Your task to perform on an android device: change the clock display to show seconds Image 0: 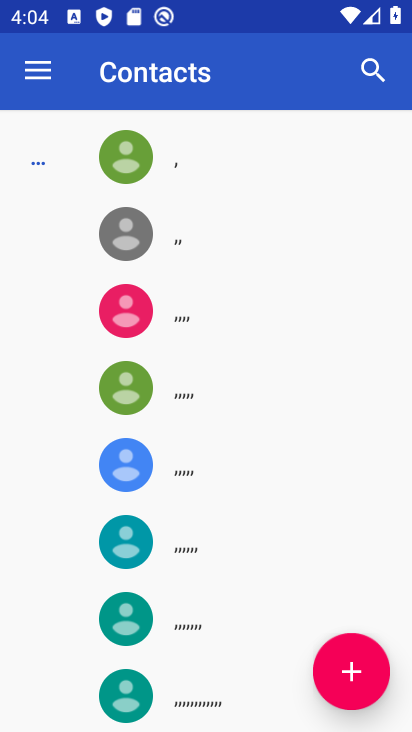
Step 0: press home button
Your task to perform on an android device: change the clock display to show seconds Image 1: 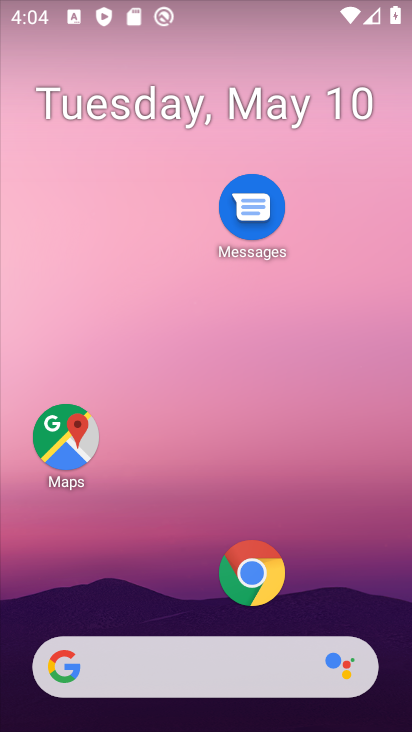
Step 1: drag from (191, 598) to (190, 196)
Your task to perform on an android device: change the clock display to show seconds Image 2: 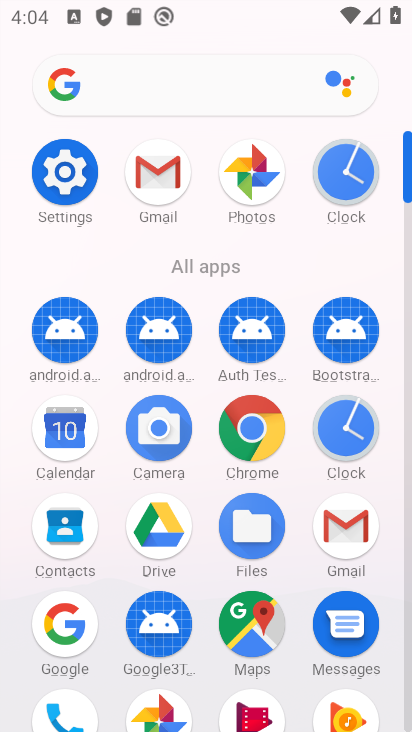
Step 2: click (76, 174)
Your task to perform on an android device: change the clock display to show seconds Image 3: 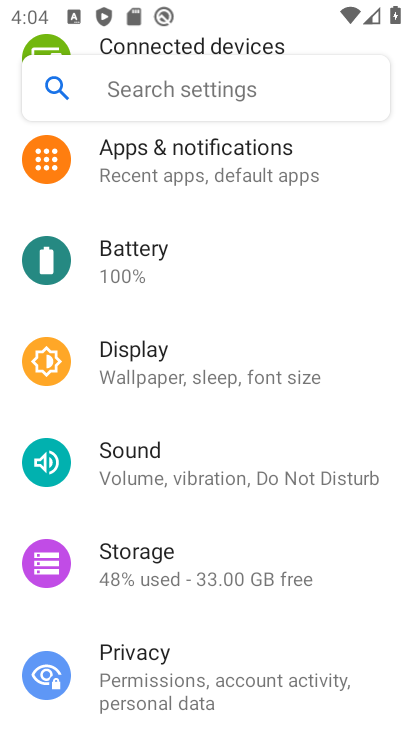
Step 3: press home button
Your task to perform on an android device: change the clock display to show seconds Image 4: 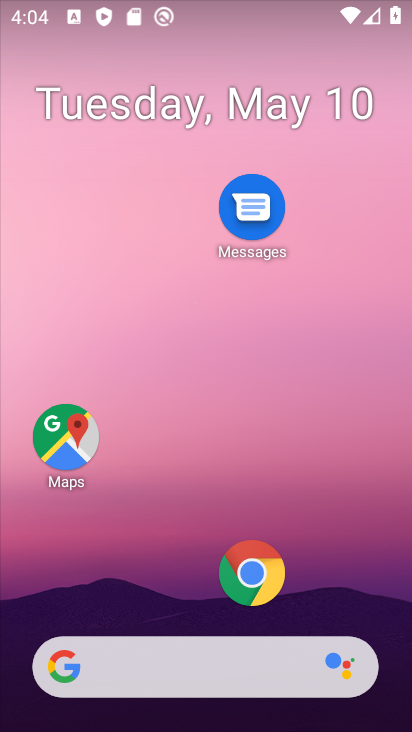
Step 4: drag from (176, 604) to (148, 271)
Your task to perform on an android device: change the clock display to show seconds Image 5: 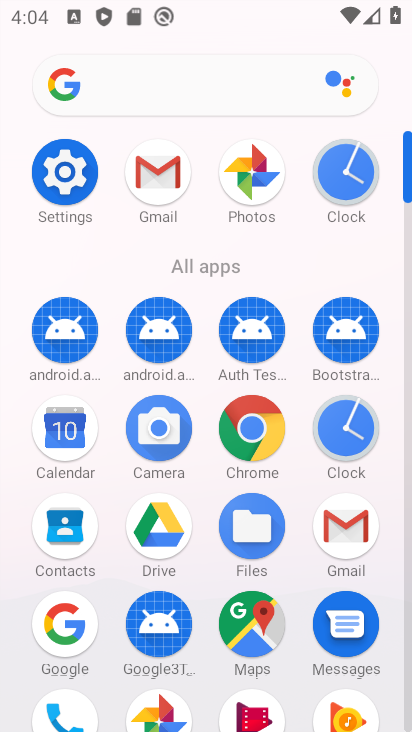
Step 5: click (332, 203)
Your task to perform on an android device: change the clock display to show seconds Image 6: 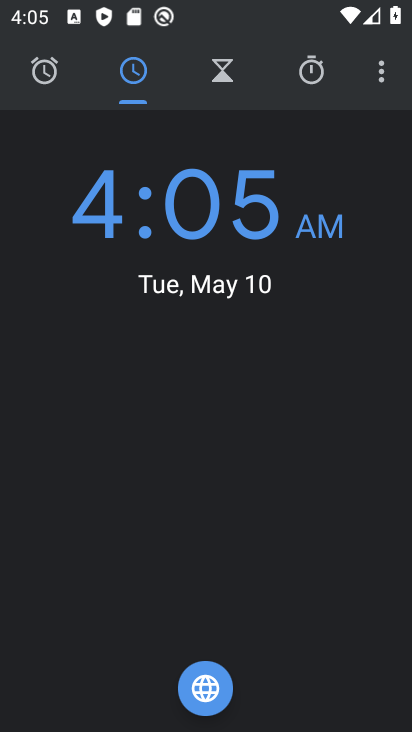
Step 6: click (371, 87)
Your task to perform on an android device: change the clock display to show seconds Image 7: 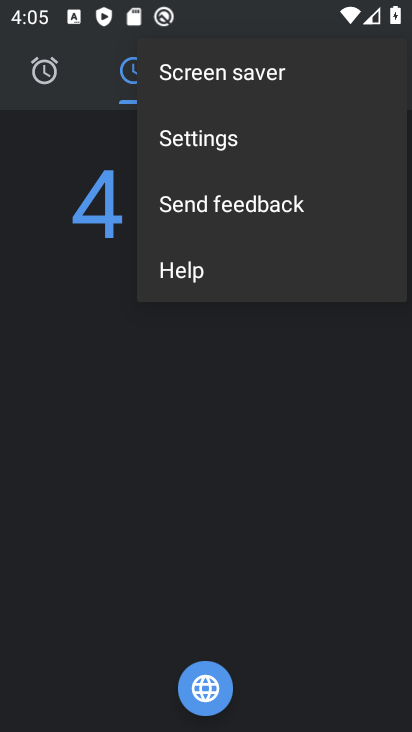
Step 7: click (222, 155)
Your task to perform on an android device: change the clock display to show seconds Image 8: 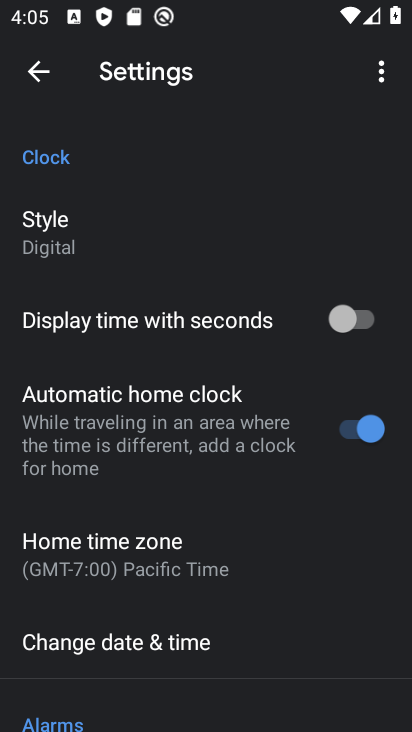
Step 8: click (372, 317)
Your task to perform on an android device: change the clock display to show seconds Image 9: 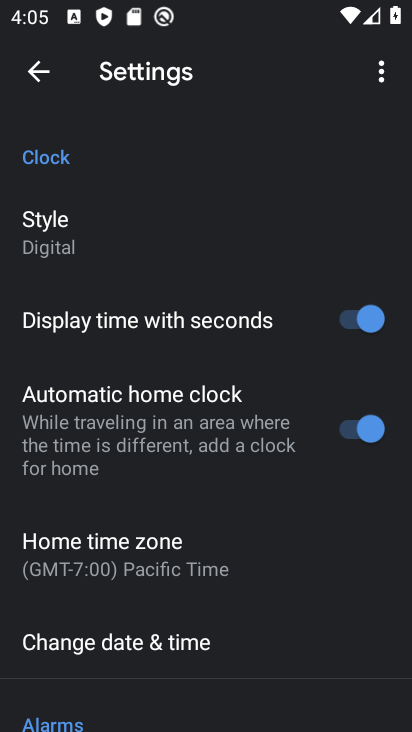
Step 9: task complete